Your task to perform on an android device: What's the weather going to be tomorrow? Image 0: 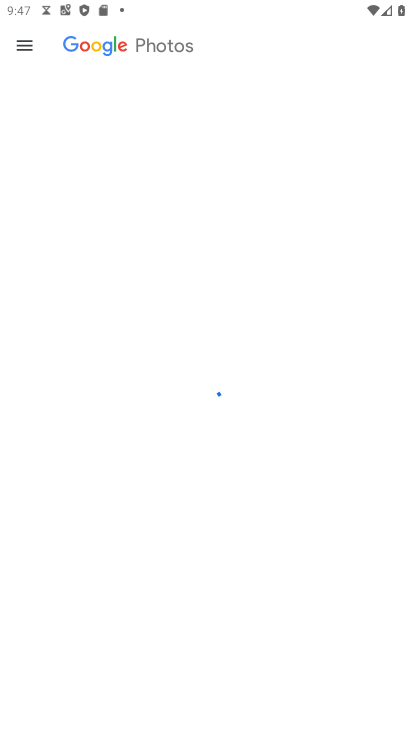
Step 0: press home button
Your task to perform on an android device: What's the weather going to be tomorrow? Image 1: 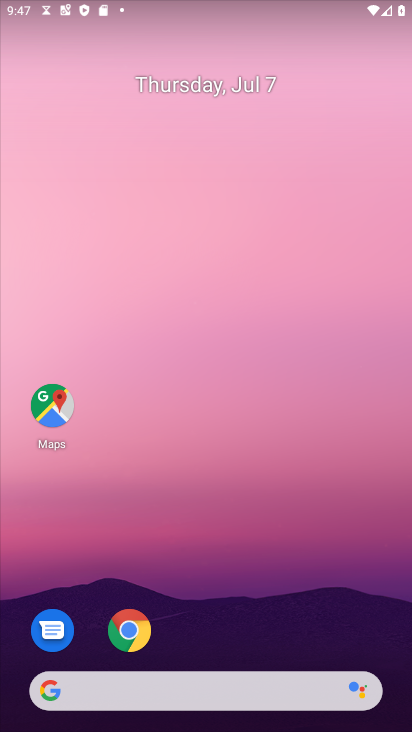
Step 1: drag from (207, 678) to (207, 351)
Your task to perform on an android device: What's the weather going to be tomorrow? Image 2: 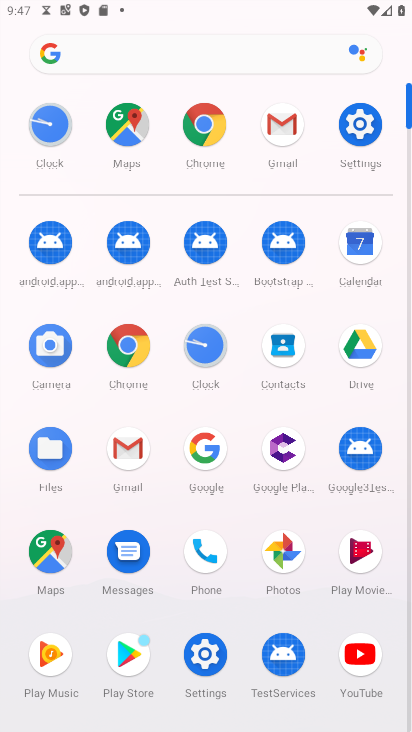
Step 2: click (208, 447)
Your task to perform on an android device: What's the weather going to be tomorrow? Image 3: 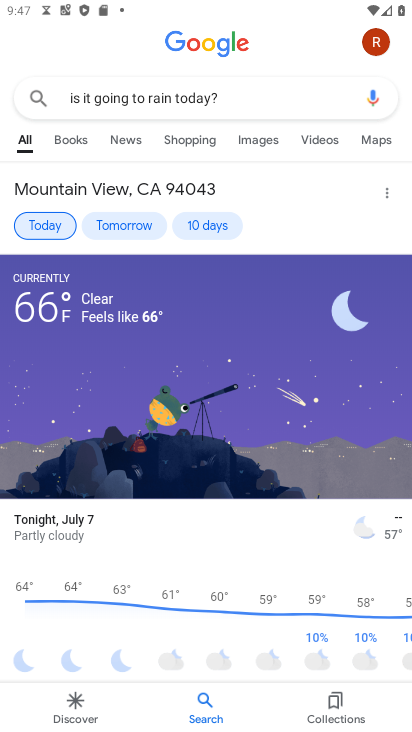
Step 3: click (236, 86)
Your task to perform on an android device: What's the weather going to be tomorrow? Image 4: 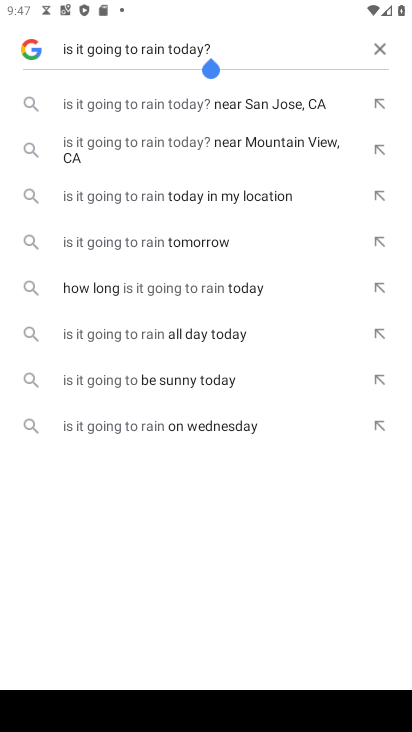
Step 4: click (384, 49)
Your task to perform on an android device: What's the weather going to be tomorrow? Image 5: 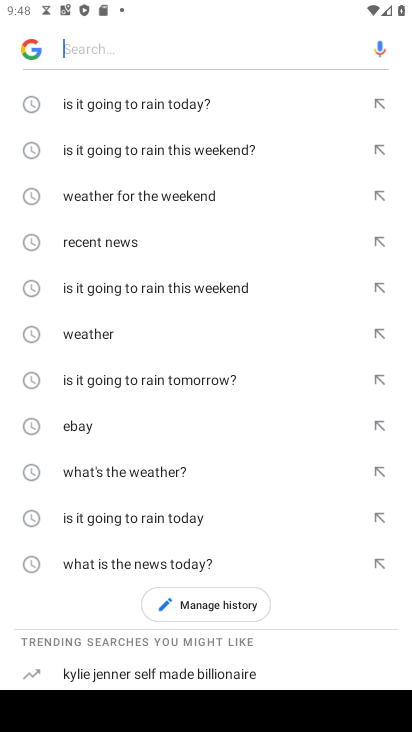
Step 5: type "What's the weather going to be tomorrow?"
Your task to perform on an android device: What's the weather going to be tomorrow? Image 6: 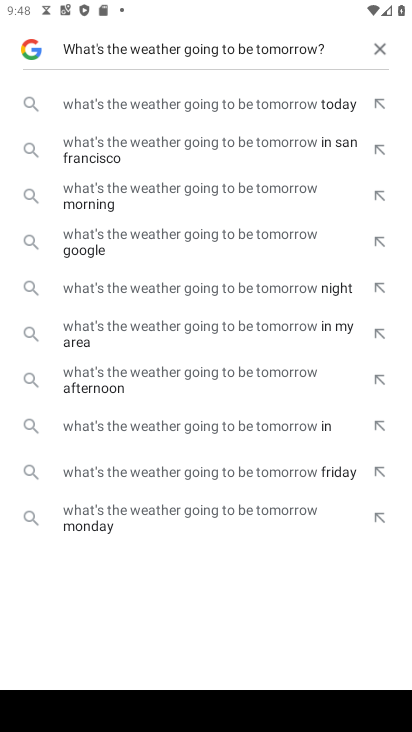
Step 6: click (191, 102)
Your task to perform on an android device: What's the weather going to be tomorrow? Image 7: 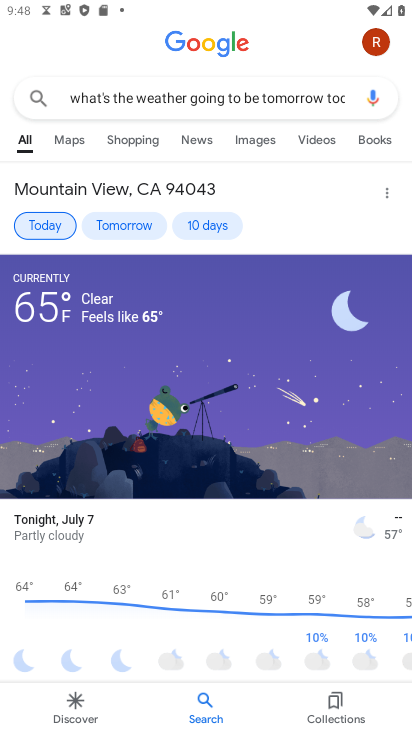
Step 7: task complete